Your task to perform on an android device: find snoozed emails in the gmail app Image 0: 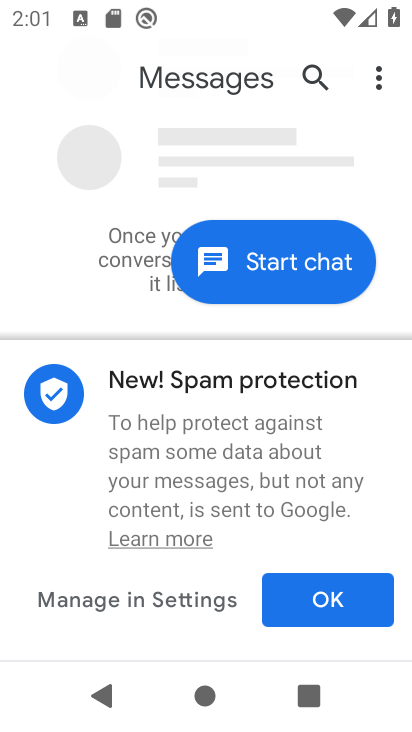
Step 0: press home button
Your task to perform on an android device: find snoozed emails in the gmail app Image 1: 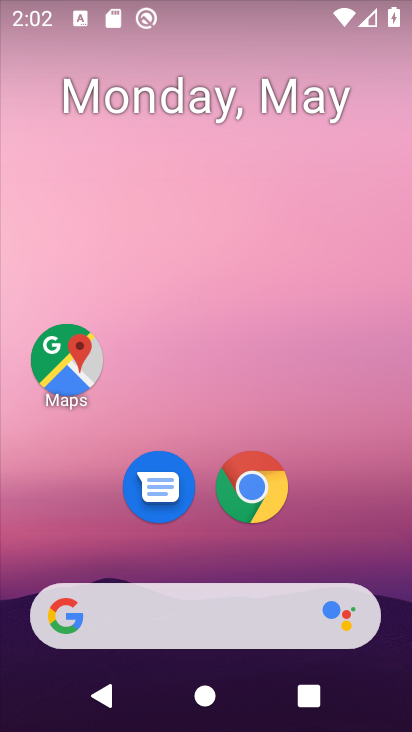
Step 1: drag from (227, 395) to (216, 39)
Your task to perform on an android device: find snoozed emails in the gmail app Image 2: 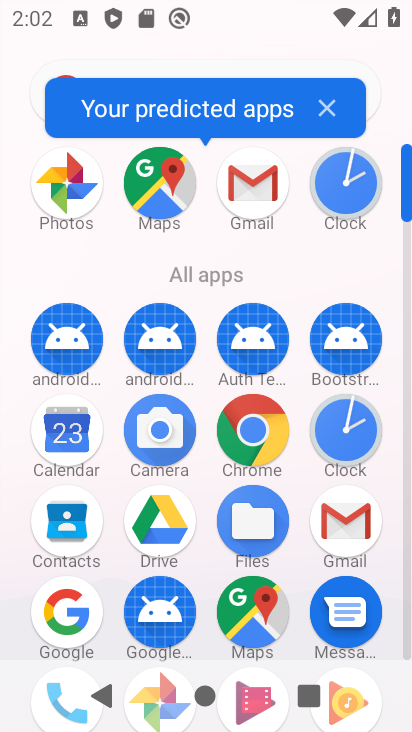
Step 2: click (245, 188)
Your task to perform on an android device: find snoozed emails in the gmail app Image 3: 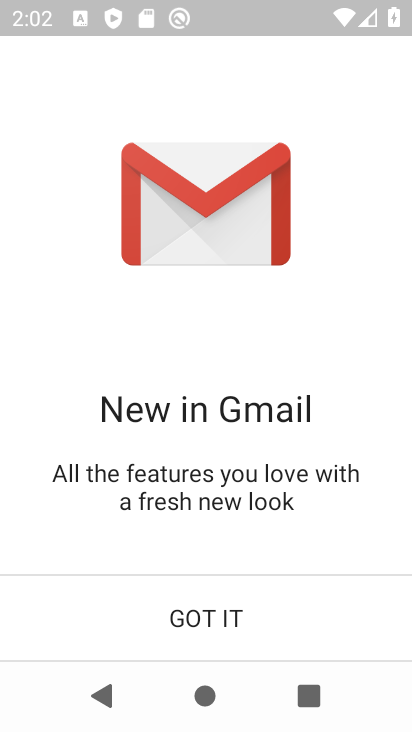
Step 3: click (232, 592)
Your task to perform on an android device: find snoozed emails in the gmail app Image 4: 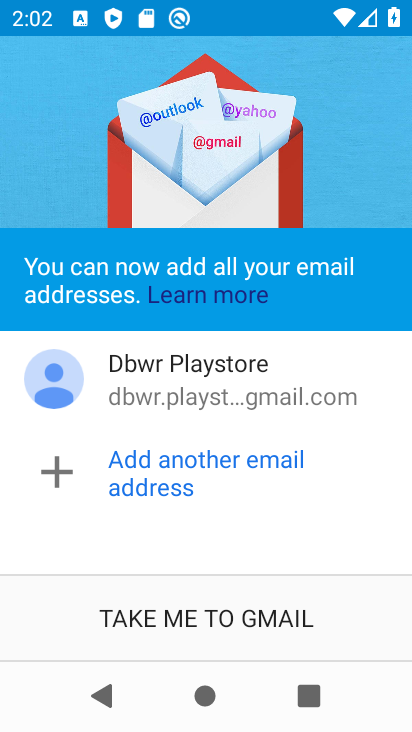
Step 4: click (229, 605)
Your task to perform on an android device: find snoozed emails in the gmail app Image 5: 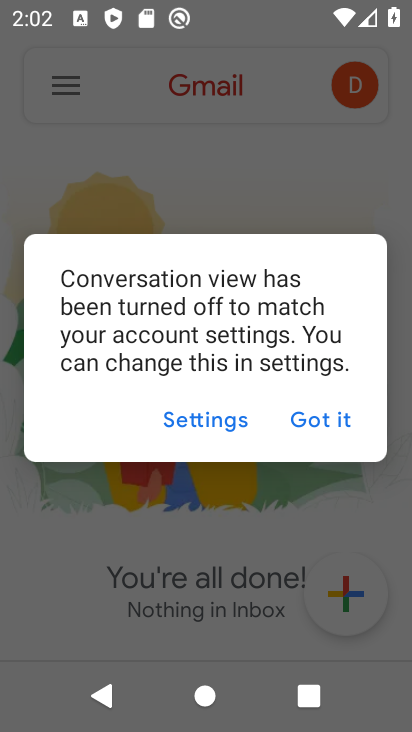
Step 5: click (320, 412)
Your task to perform on an android device: find snoozed emails in the gmail app Image 6: 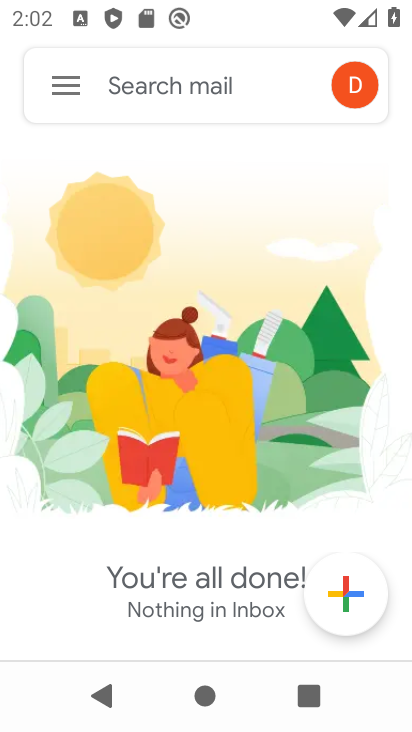
Step 6: click (68, 87)
Your task to perform on an android device: find snoozed emails in the gmail app Image 7: 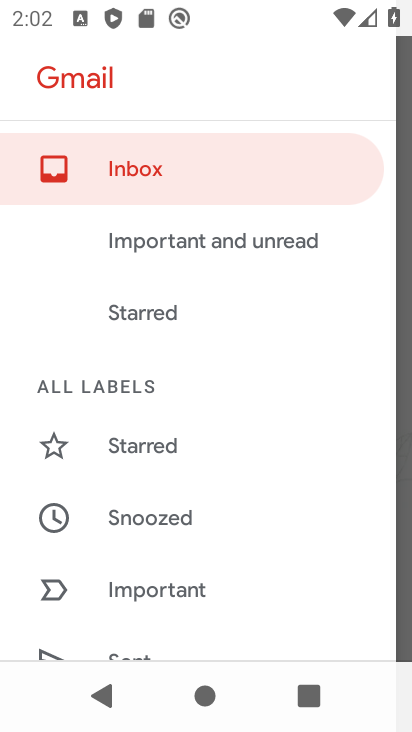
Step 7: drag from (246, 529) to (293, 68)
Your task to perform on an android device: find snoozed emails in the gmail app Image 8: 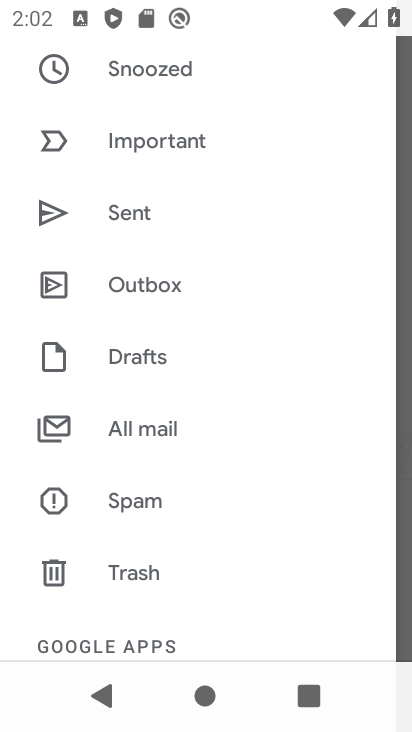
Step 8: click (258, 69)
Your task to perform on an android device: find snoozed emails in the gmail app Image 9: 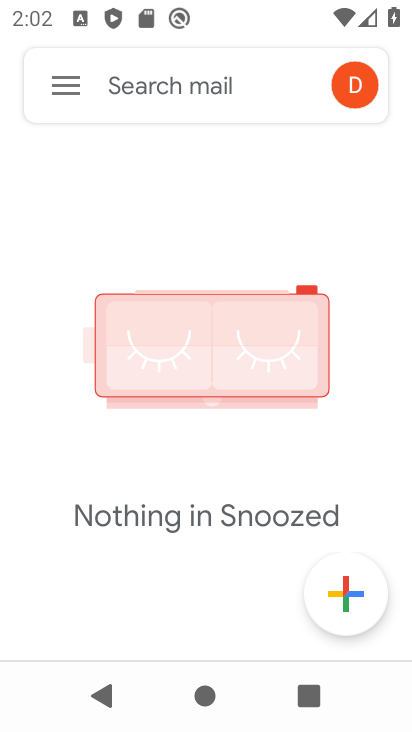
Step 9: task complete